Your task to perform on an android device: set an alarm Image 0: 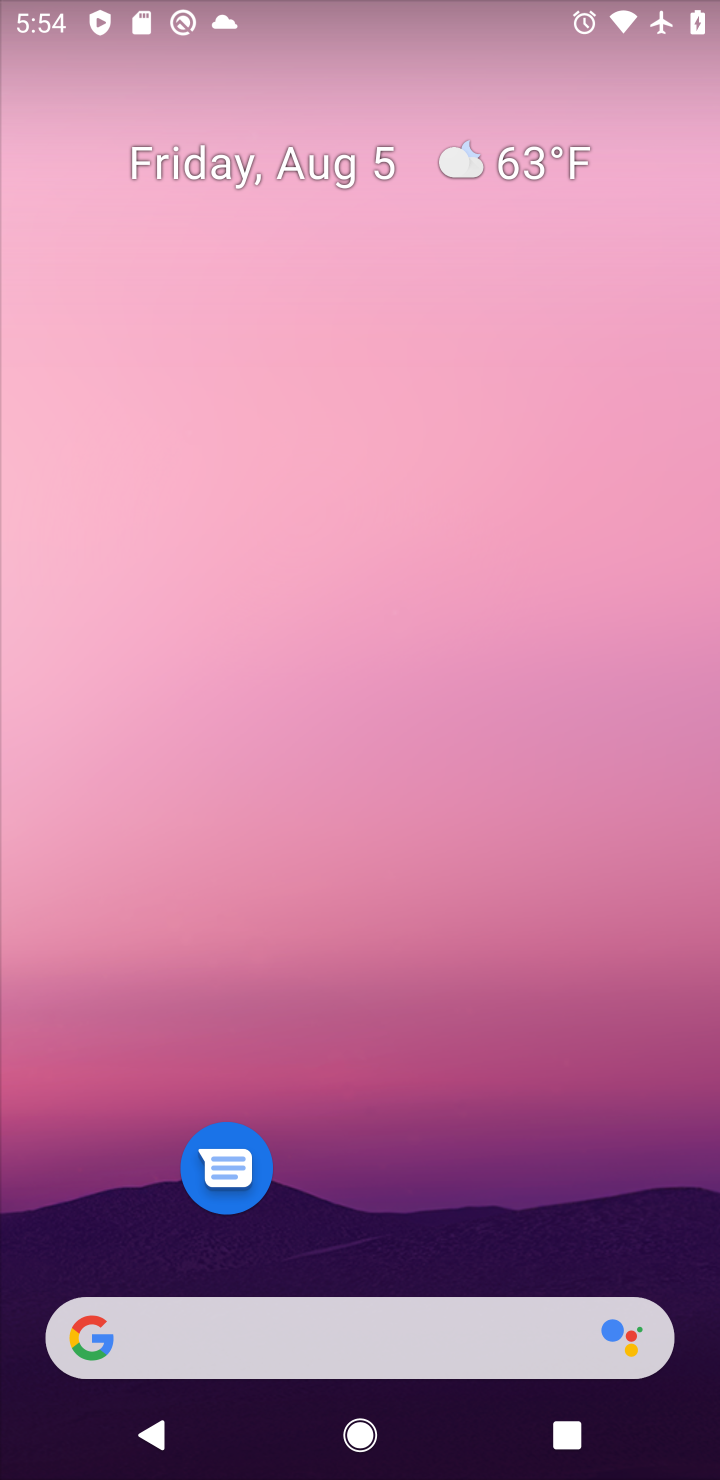
Step 0: drag from (422, 1219) to (401, 29)
Your task to perform on an android device: set an alarm Image 1: 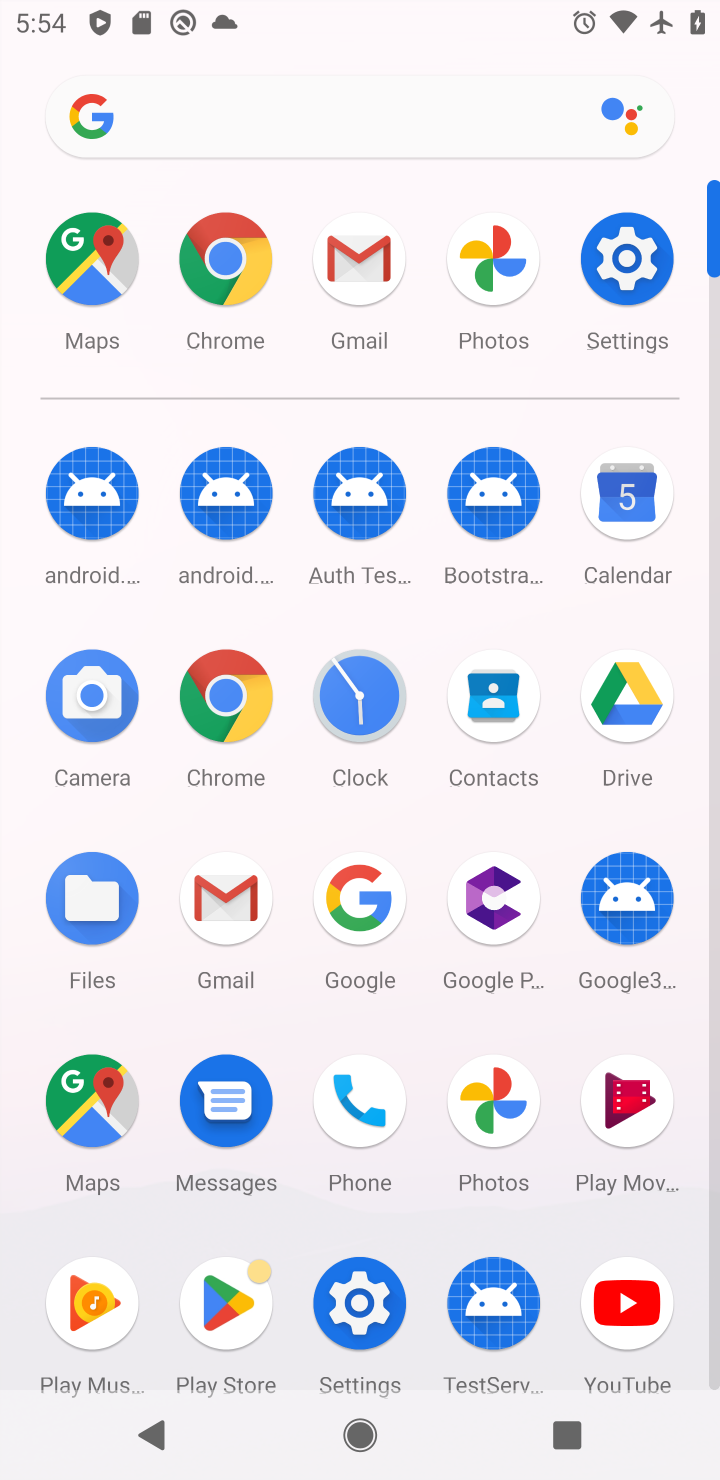
Step 1: click (378, 716)
Your task to perform on an android device: set an alarm Image 2: 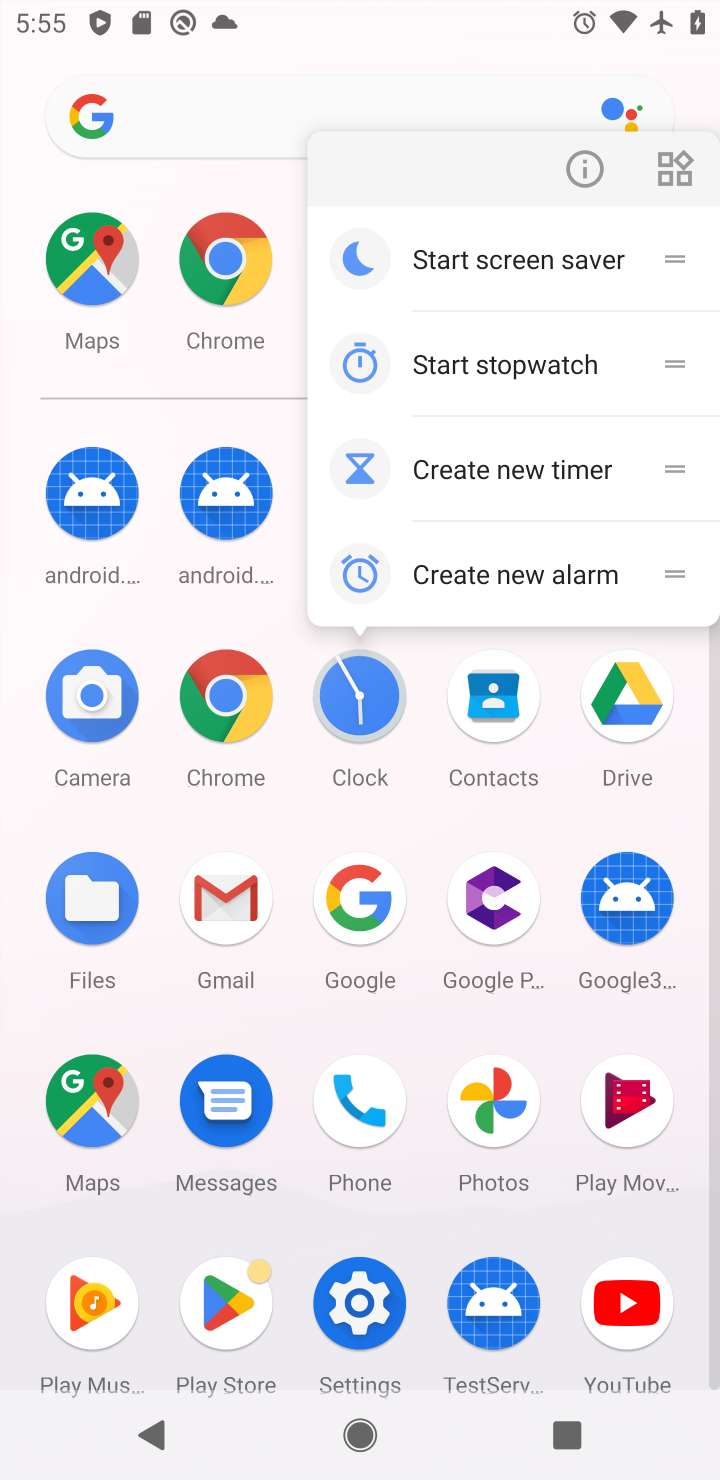
Step 2: click (386, 711)
Your task to perform on an android device: set an alarm Image 3: 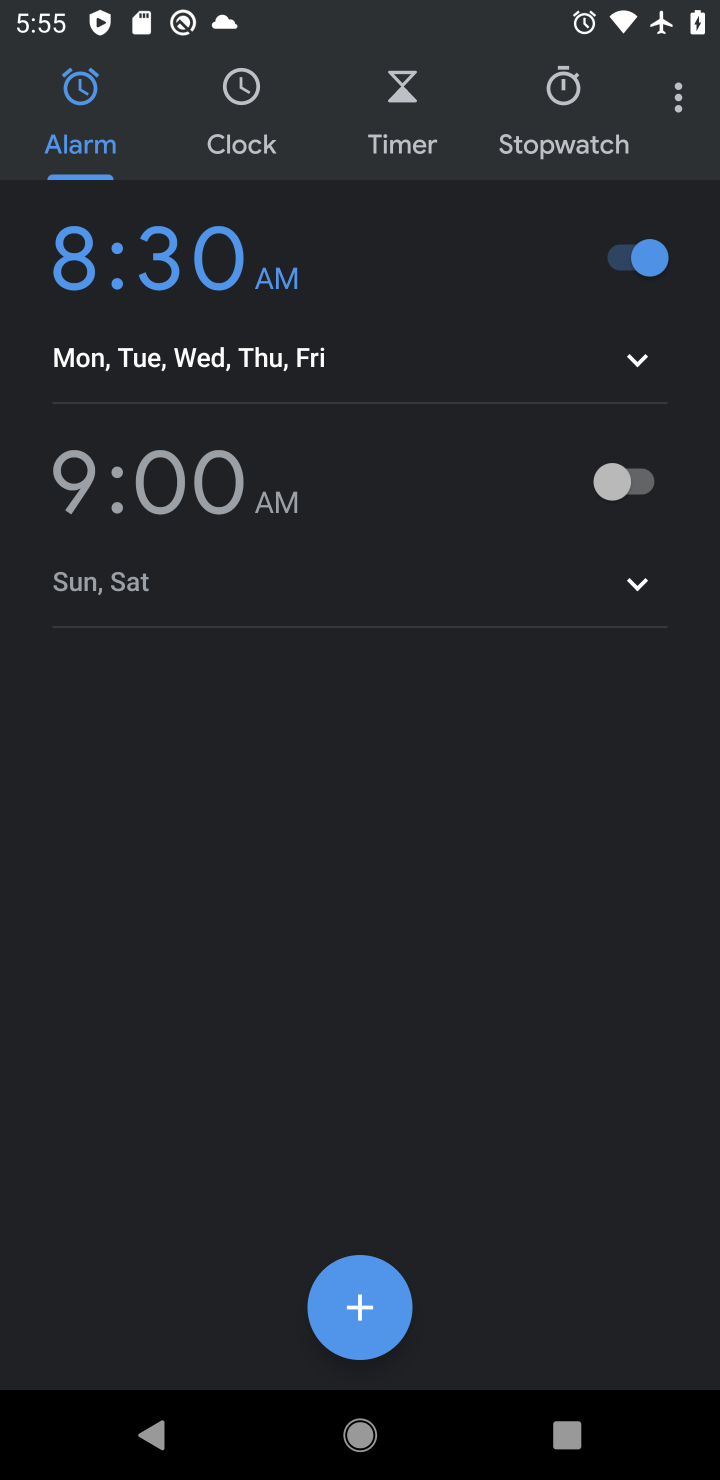
Step 3: click (601, 495)
Your task to perform on an android device: set an alarm Image 4: 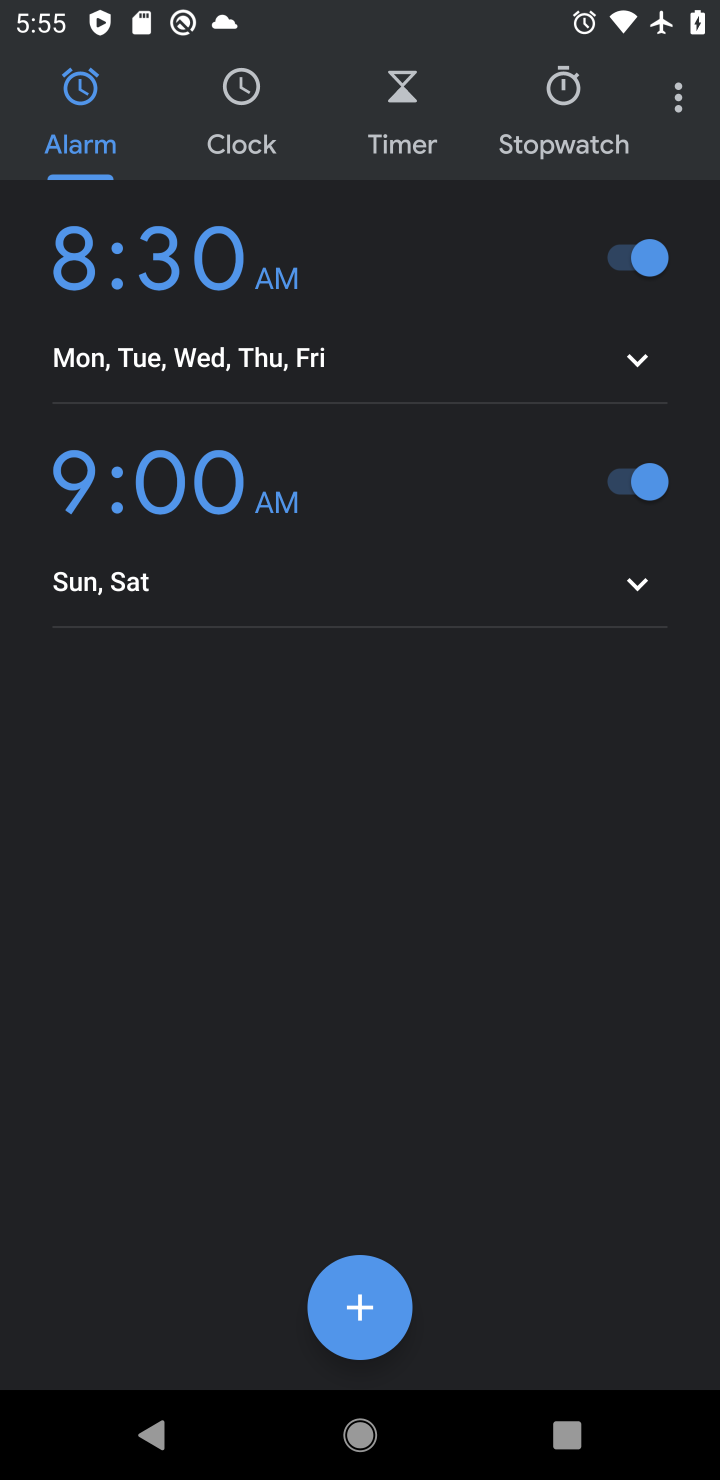
Step 4: task complete